Your task to perform on an android device: Go to Yahoo.com Image 0: 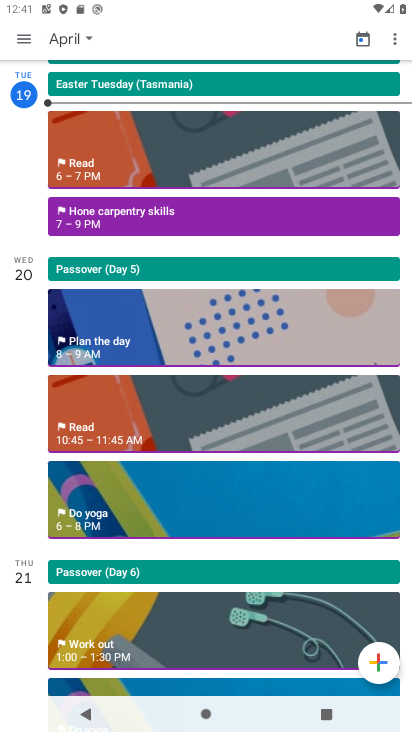
Step 0: press back button
Your task to perform on an android device: Go to Yahoo.com Image 1: 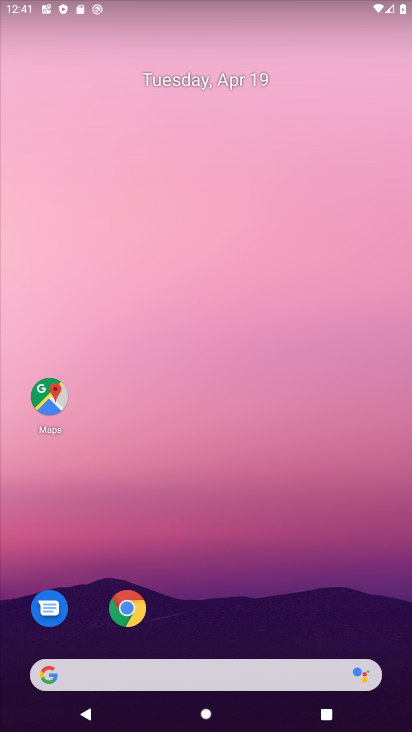
Step 1: click (123, 604)
Your task to perform on an android device: Go to Yahoo.com Image 2: 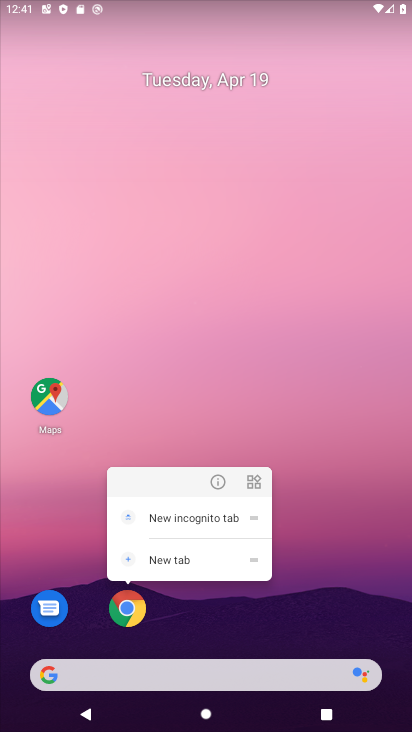
Step 2: drag from (411, 151) to (410, 90)
Your task to perform on an android device: Go to Yahoo.com Image 3: 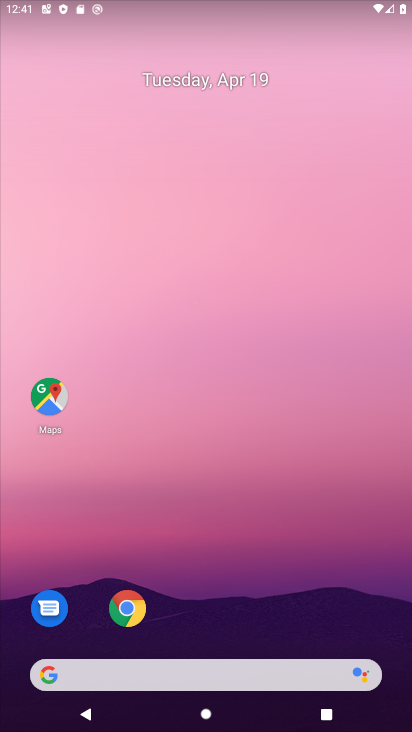
Step 3: drag from (270, 647) to (384, 116)
Your task to perform on an android device: Go to Yahoo.com Image 4: 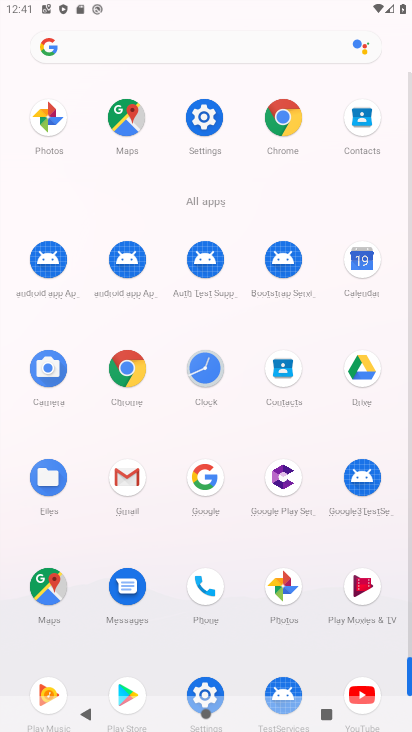
Step 4: click (134, 369)
Your task to perform on an android device: Go to Yahoo.com Image 5: 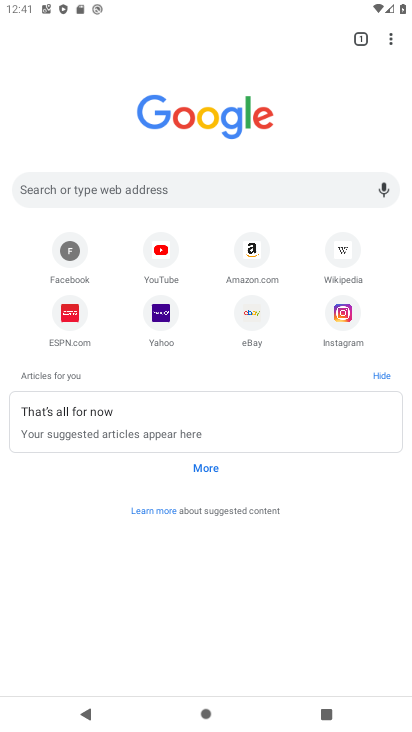
Step 5: click (165, 323)
Your task to perform on an android device: Go to Yahoo.com Image 6: 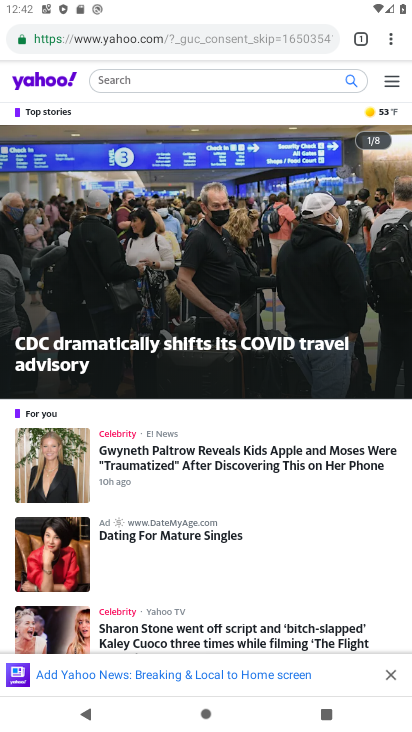
Step 6: task complete